Your task to perform on an android device: Show me popular games on the Play Store Image 0: 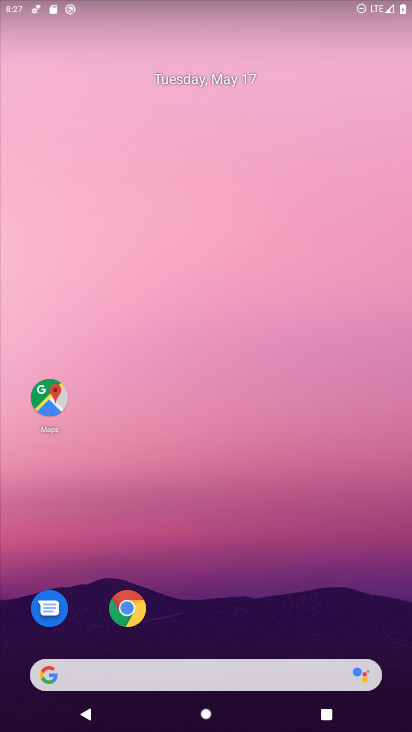
Step 0: drag from (183, 600) to (257, 77)
Your task to perform on an android device: Show me popular games on the Play Store Image 1: 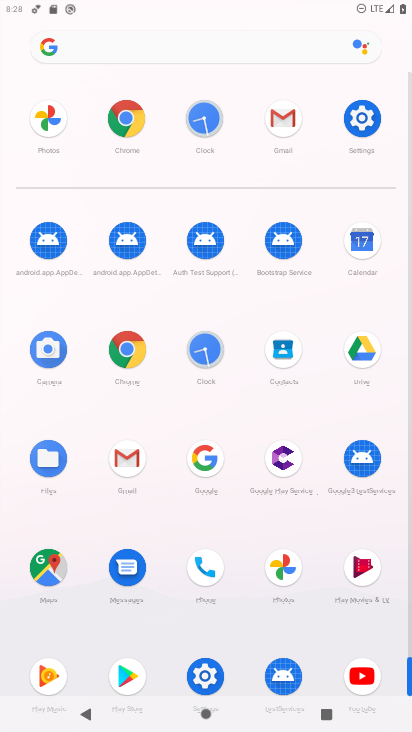
Step 1: click (124, 672)
Your task to perform on an android device: Show me popular games on the Play Store Image 2: 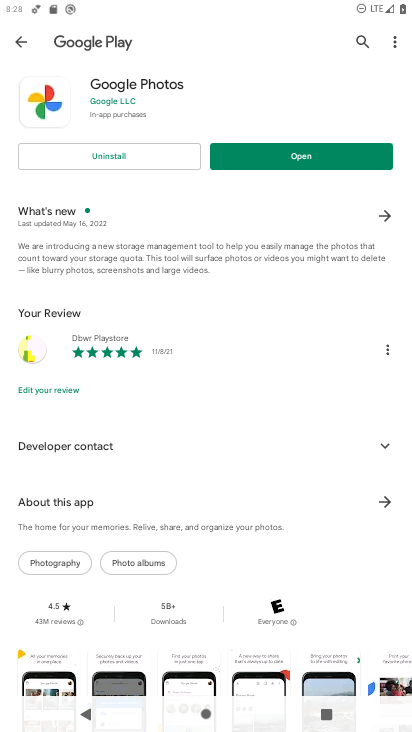
Step 2: click (16, 42)
Your task to perform on an android device: Show me popular games on the Play Store Image 3: 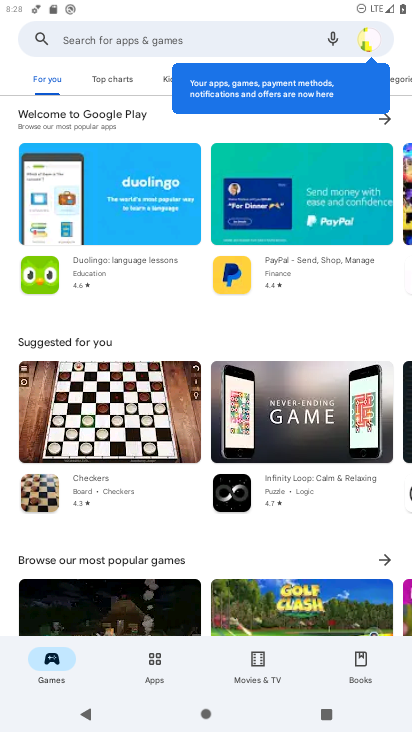
Step 3: click (115, 78)
Your task to perform on an android device: Show me popular games on the Play Store Image 4: 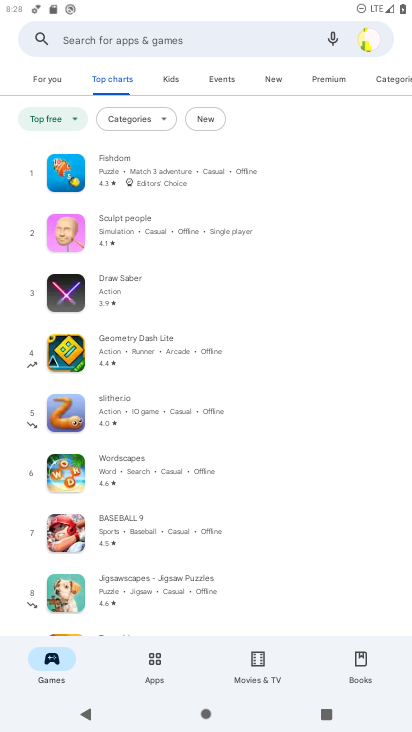
Step 4: task complete